Your task to perform on an android device: Is it going to rain this weekend? Image 0: 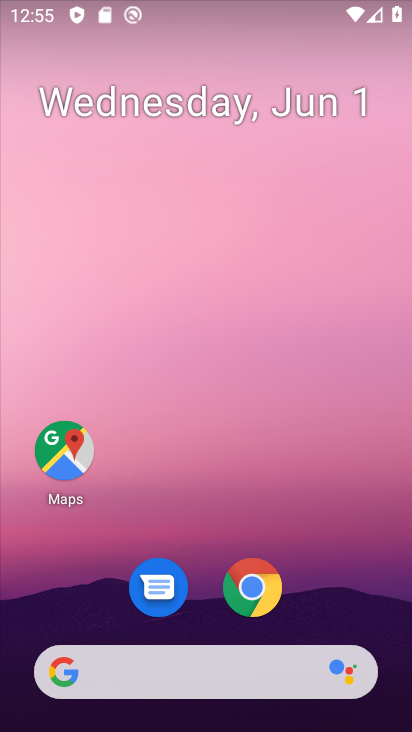
Step 0: click (235, 588)
Your task to perform on an android device: Is it going to rain this weekend? Image 1: 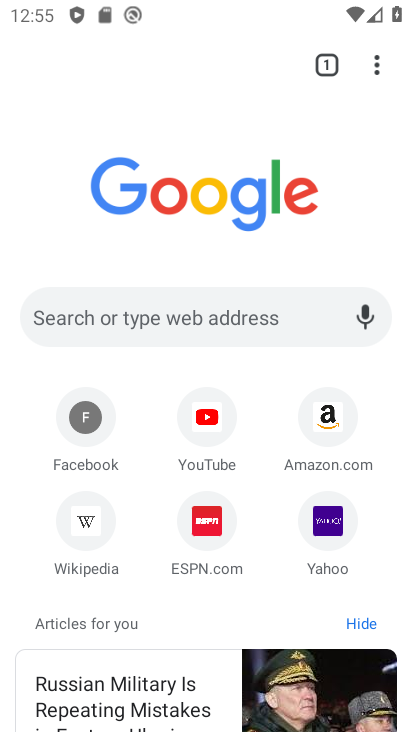
Step 1: click (52, 309)
Your task to perform on an android device: Is it going to rain this weekend? Image 2: 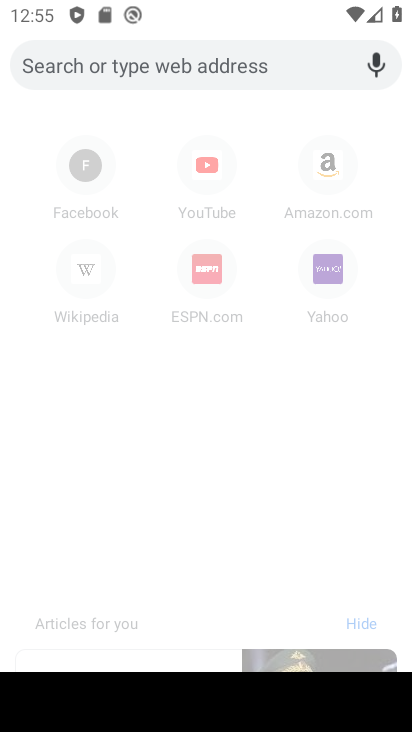
Step 2: type "Is it going to rain this weekend?"
Your task to perform on an android device: Is it going to rain this weekend? Image 3: 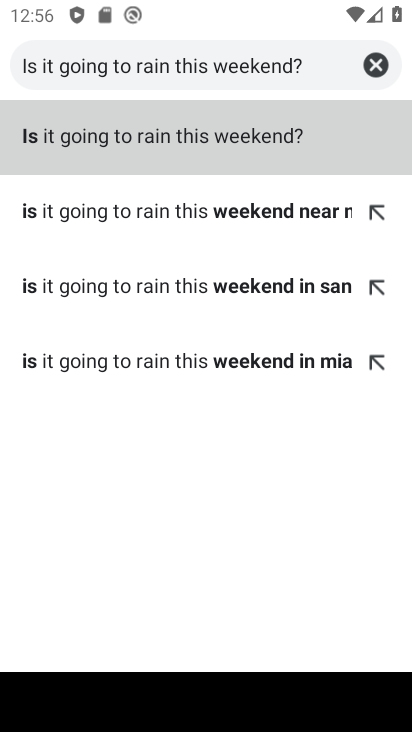
Step 3: click (213, 132)
Your task to perform on an android device: Is it going to rain this weekend? Image 4: 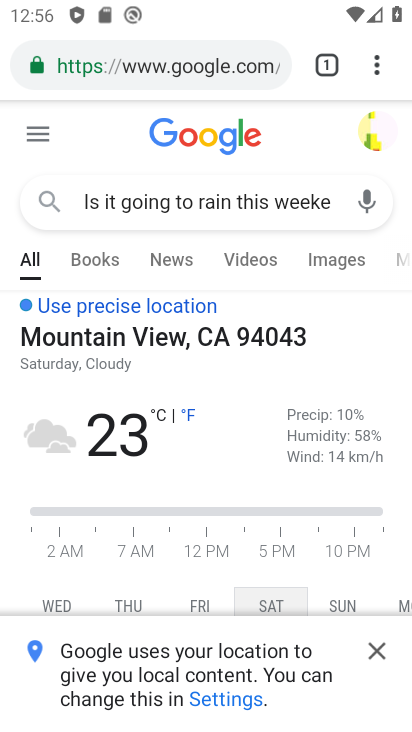
Step 4: task complete